Your task to perform on an android device: uninstall "Speedtest by Ookla" Image 0: 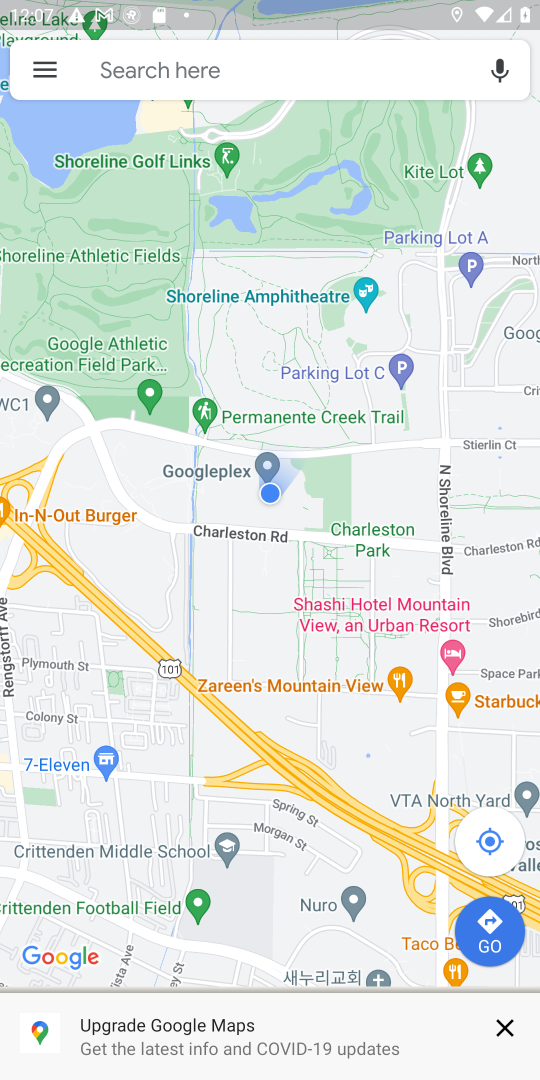
Step 0: press home button
Your task to perform on an android device: uninstall "Speedtest by Ookla" Image 1: 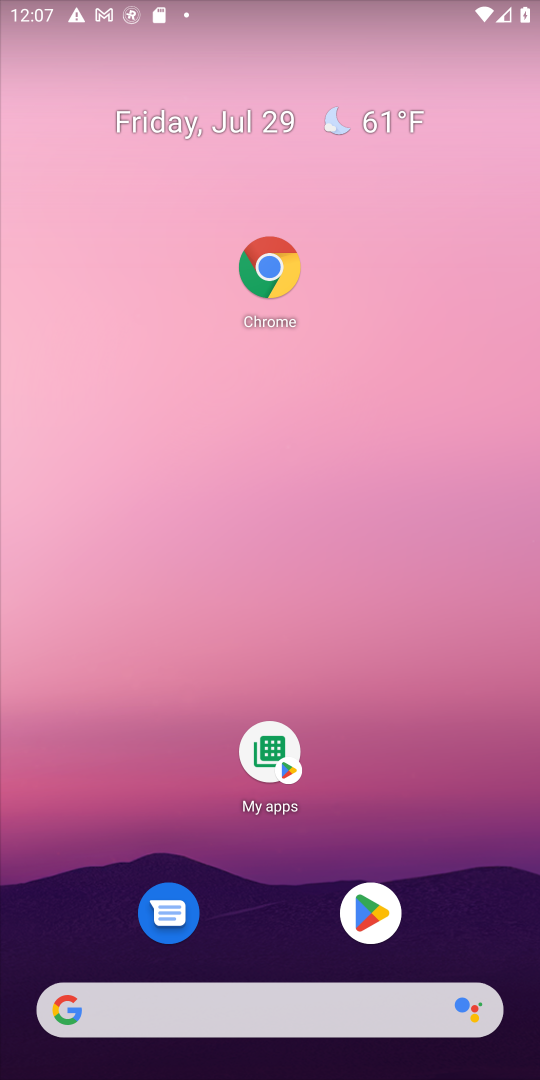
Step 1: click (385, 927)
Your task to perform on an android device: uninstall "Speedtest by Ookla" Image 2: 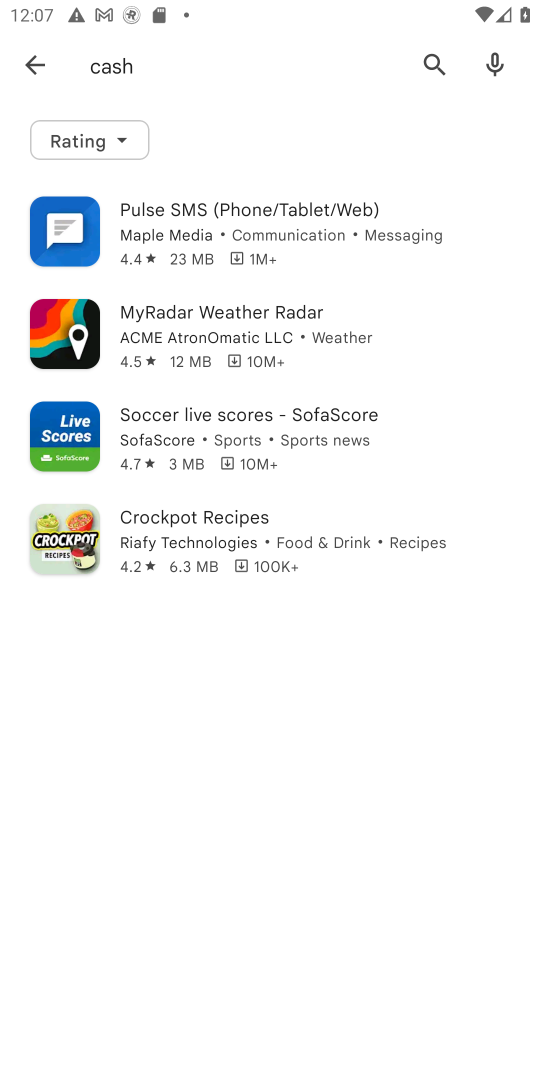
Step 2: click (427, 47)
Your task to perform on an android device: uninstall "Speedtest by Ookla" Image 3: 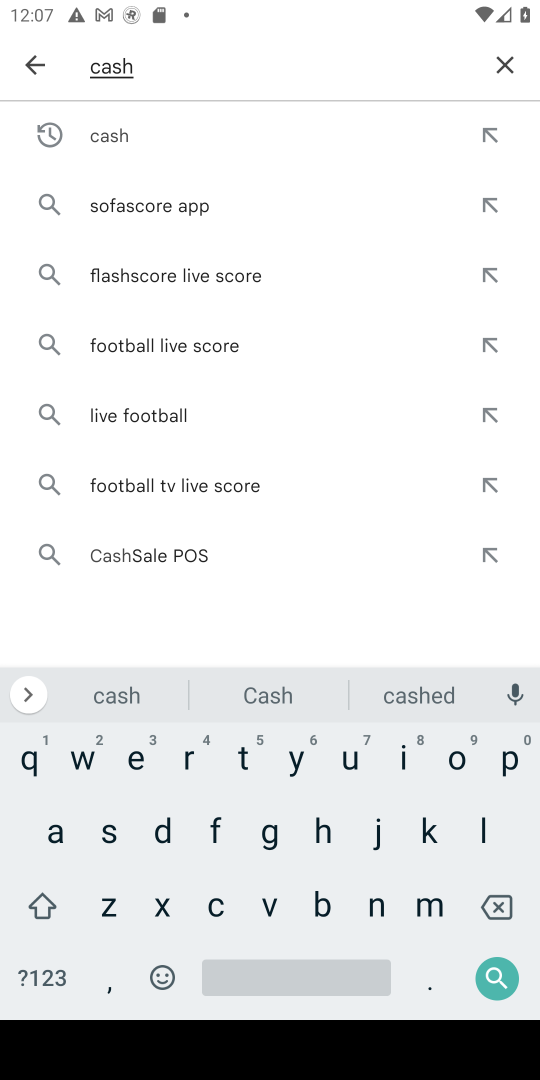
Step 3: click (502, 57)
Your task to perform on an android device: uninstall "Speedtest by Ookla" Image 4: 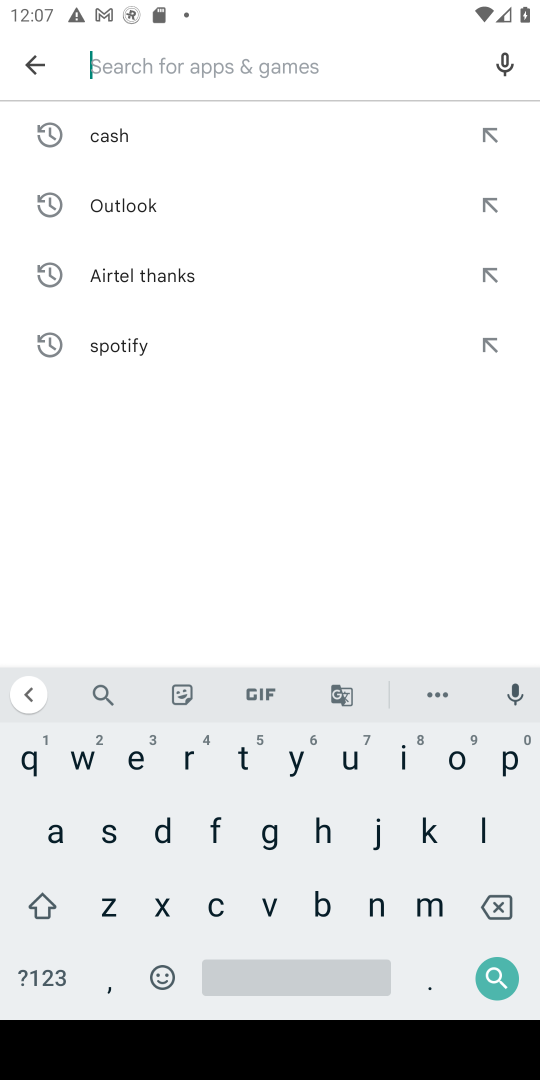
Step 4: type "speedtest"
Your task to perform on an android device: uninstall "Speedtest by Ookla" Image 5: 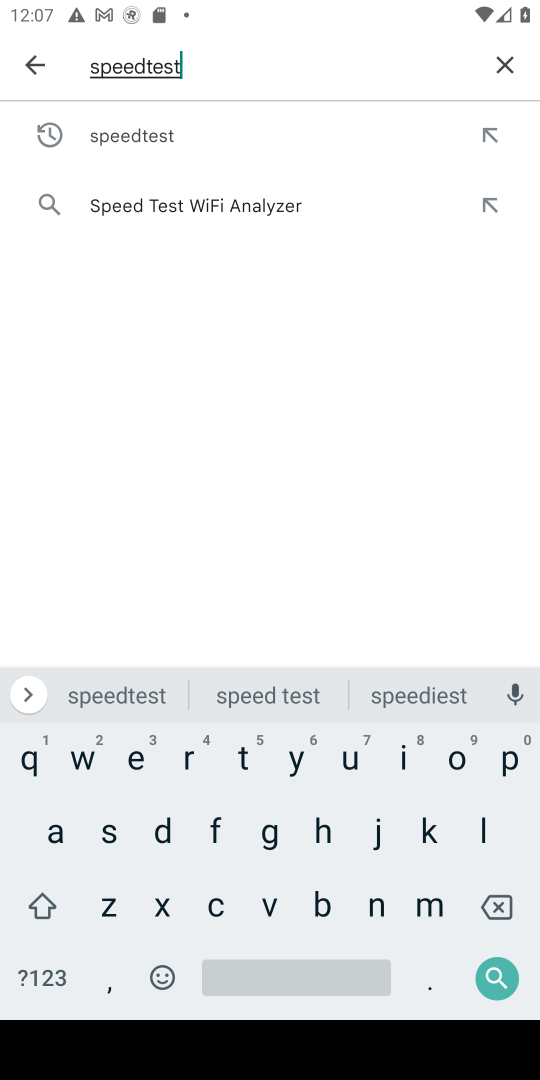
Step 5: click (190, 161)
Your task to perform on an android device: uninstall "Speedtest by Ookla" Image 6: 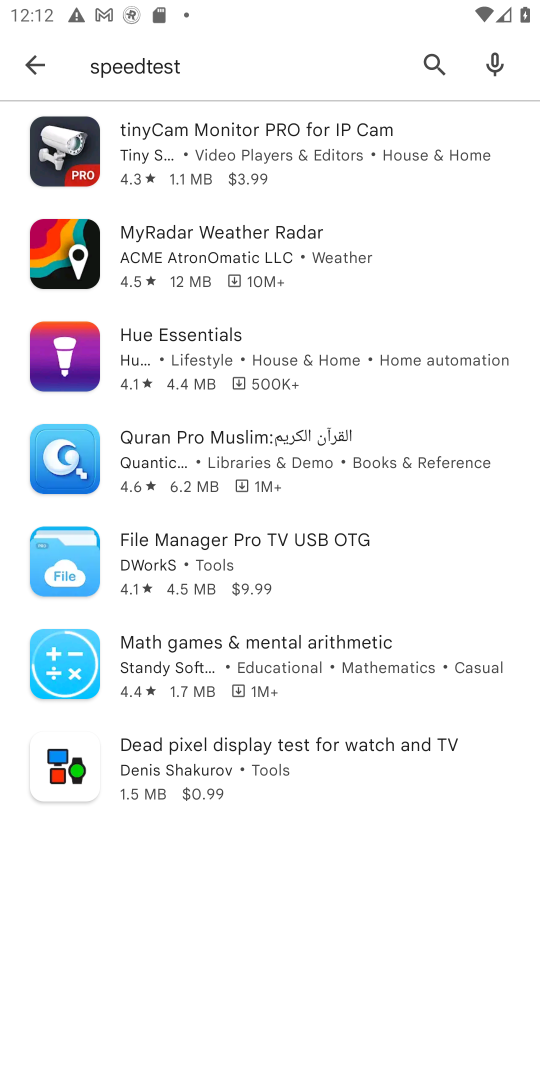
Step 6: task complete